Your task to perform on an android device: Go to Wikipedia Image 0: 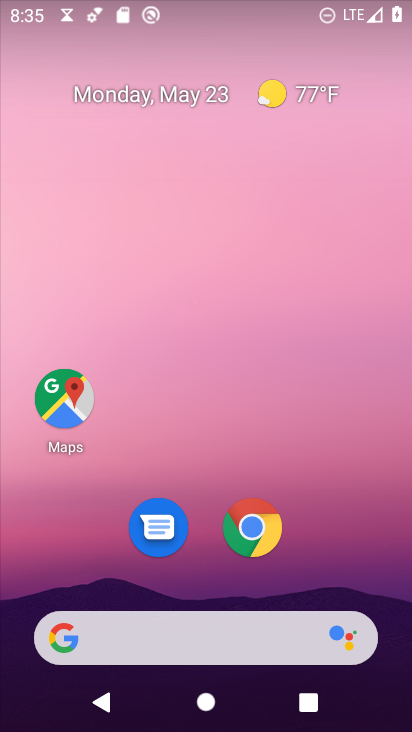
Step 0: drag from (279, 612) to (339, 332)
Your task to perform on an android device: Go to Wikipedia Image 1: 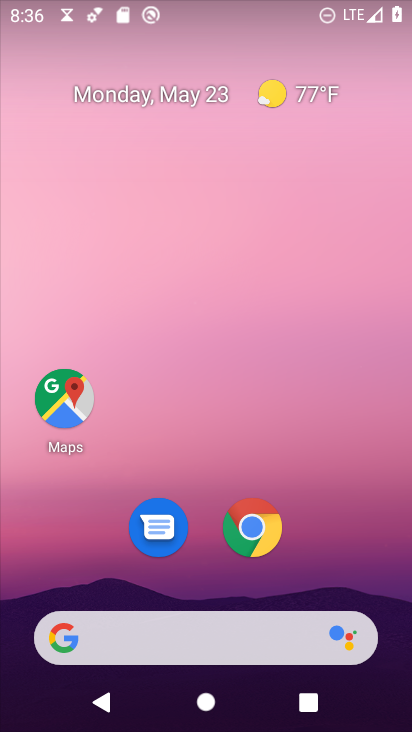
Step 1: drag from (229, 674) to (284, 143)
Your task to perform on an android device: Go to Wikipedia Image 2: 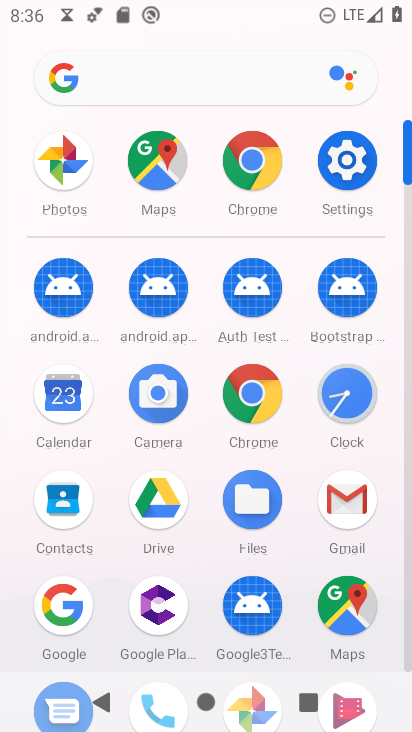
Step 2: click (279, 173)
Your task to perform on an android device: Go to Wikipedia Image 3: 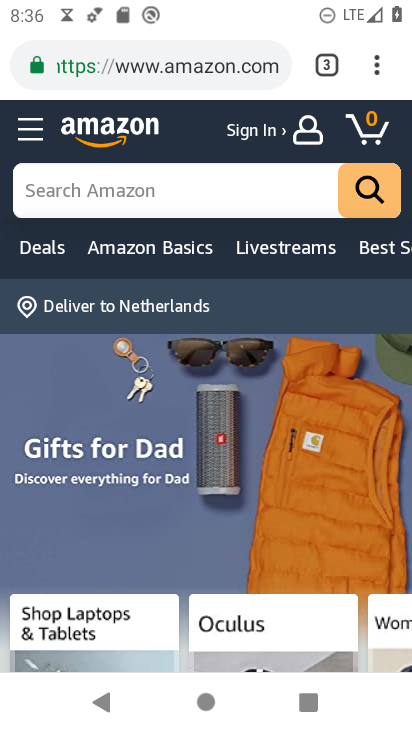
Step 3: click (209, 75)
Your task to perform on an android device: Go to Wikipedia Image 4: 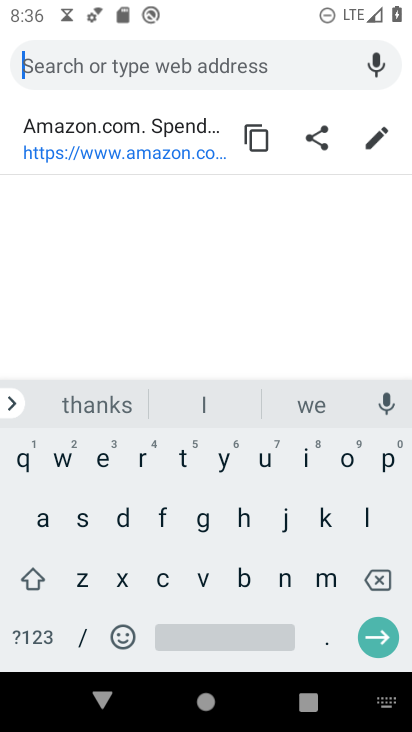
Step 4: click (64, 459)
Your task to perform on an android device: Go to Wikipedia Image 5: 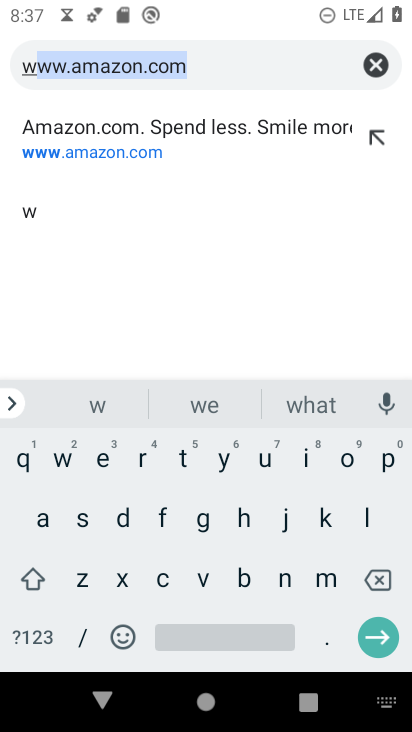
Step 5: click (309, 464)
Your task to perform on an android device: Go to Wikipedia Image 6: 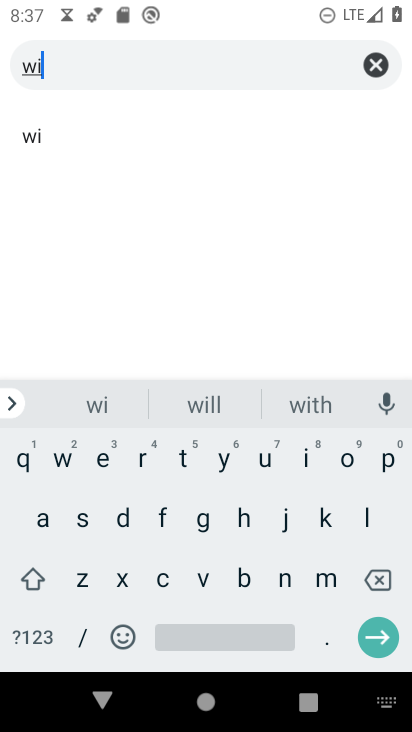
Step 6: click (326, 520)
Your task to perform on an android device: Go to Wikipedia Image 7: 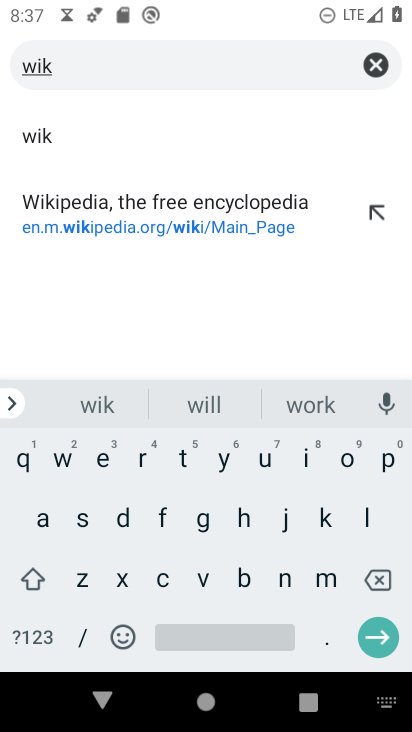
Step 7: click (109, 194)
Your task to perform on an android device: Go to Wikipedia Image 8: 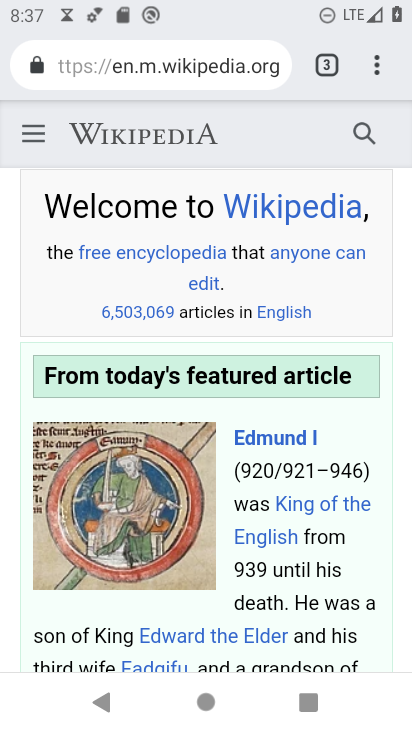
Step 8: task complete